Your task to perform on an android device: snooze an email in the gmail app Image 0: 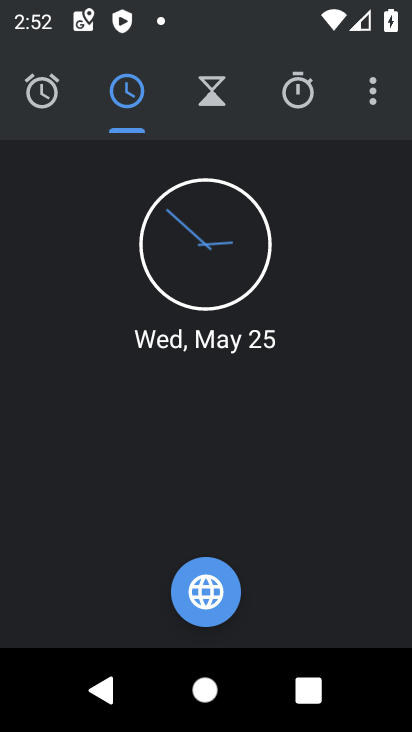
Step 0: press home button
Your task to perform on an android device: snooze an email in the gmail app Image 1: 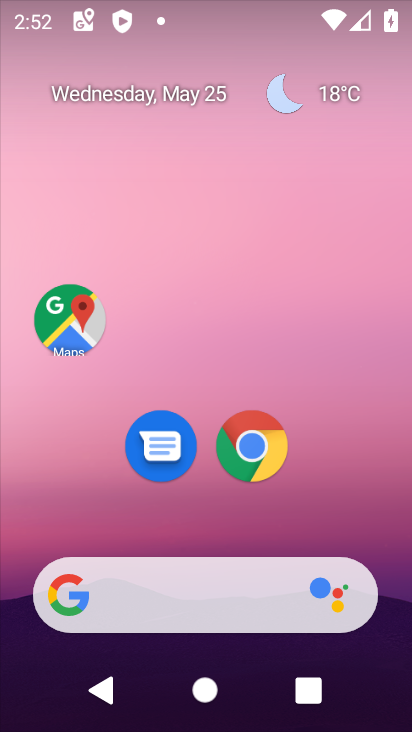
Step 1: drag from (206, 611) to (233, 197)
Your task to perform on an android device: snooze an email in the gmail app Image 2: 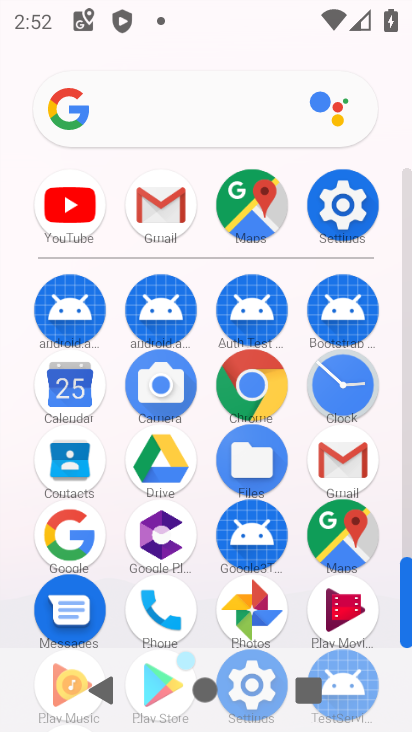
Step 2: click (170, 228)
Your task to perform on an android device: snooze an email in the gmail app Image 3: 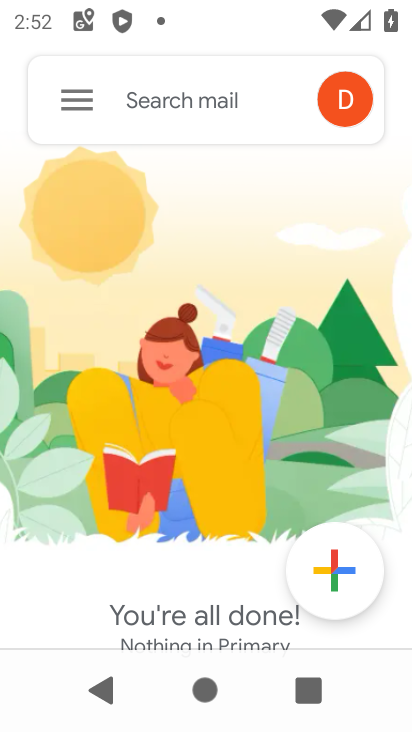
Step 3: click (88, 111)
Your task to perform on an android device: snooze an email in the gmail app Image 4: 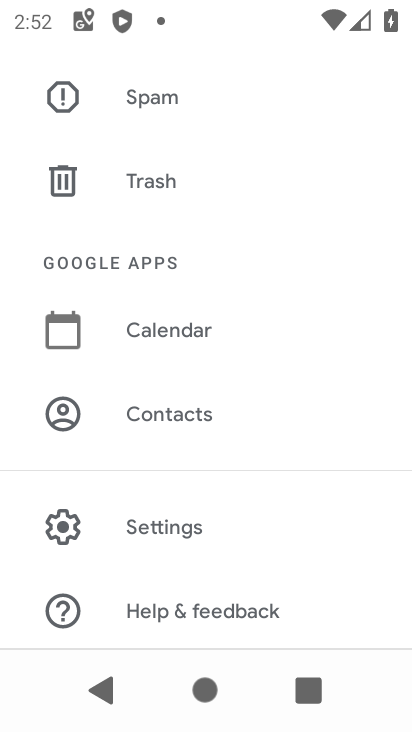
Step 4: drag from (167, 220) to (177, 522)
Your task to perform on an android device: snooze an email in the gmail app Image 5: 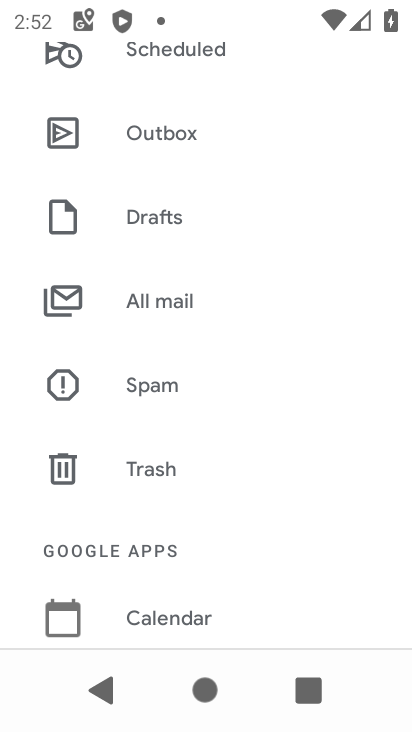
Step 5: click (165, 299)
Your task to perform on an android device: snooze an email in the gmail app Image 6: 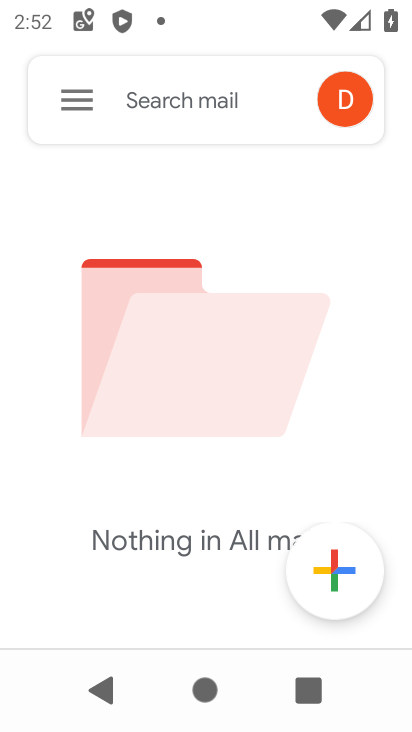
Step 6: task complete